Your task to perform on an android device: turn pop-ups on in chrome Image 0: 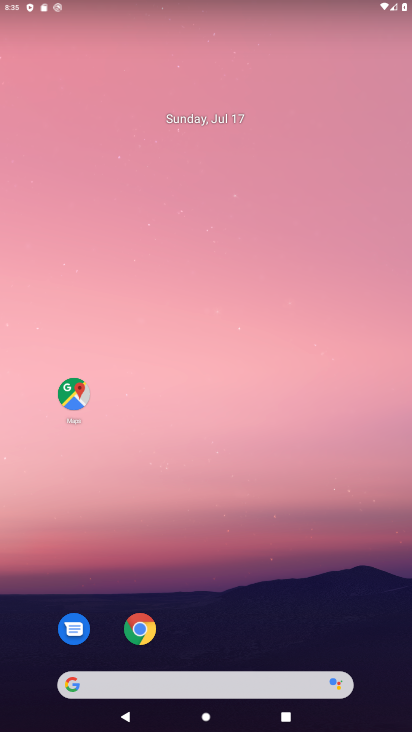
Step 0: drag from (168, 671) to (306, 42)
Your task to perform on an android device: turn pop-ups on in chrome Image 1: 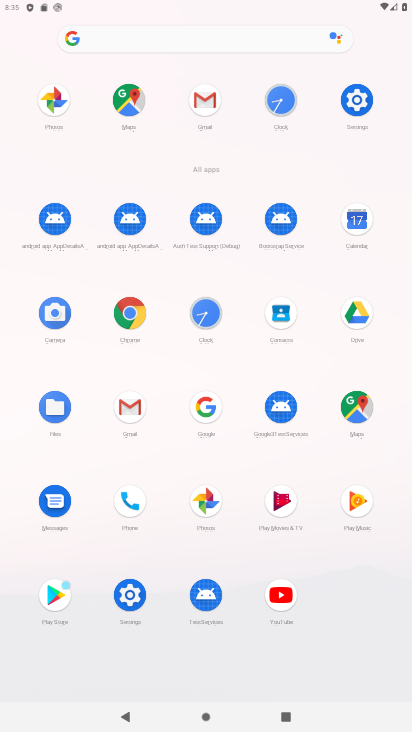
Step 1: click (114, 321)
Your task to perform on an android device: turn pop-ups on in chrome Image 2: 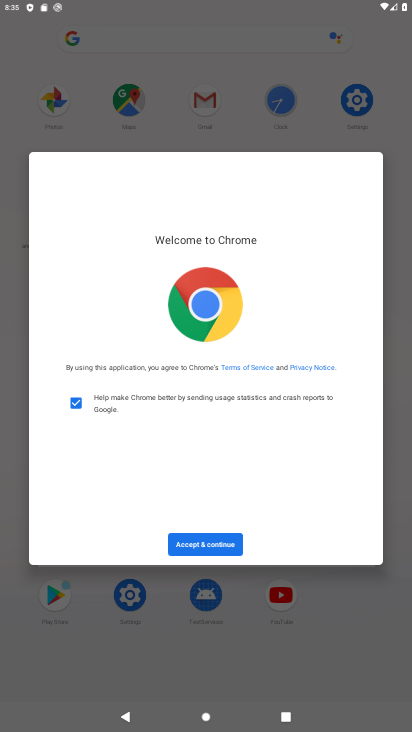
Step 2: click (225, 540)
Your task to perform on an android device: turn pop-ups on in chrome Image 3: 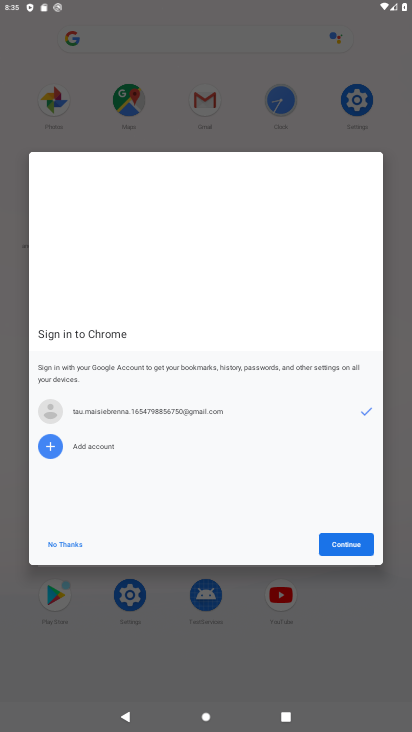
Step 3: click (357, 551)
Your task to perform on an android device: turn pop-ups on in chrome Image 4: 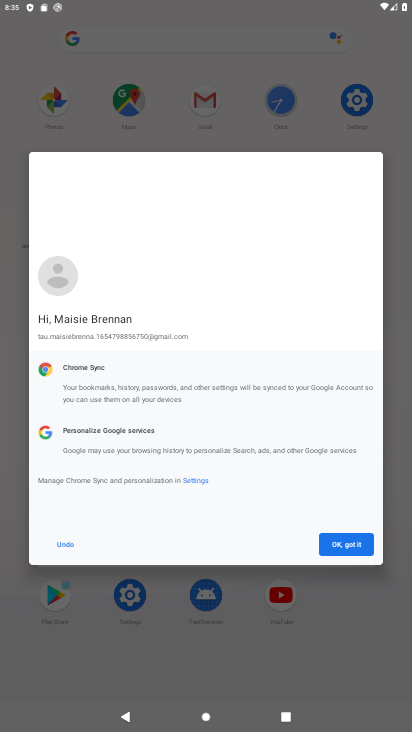
Step 4: click (352, 548)
Your task to perform on an android device: turn pop-ups on in chrome Image 5: 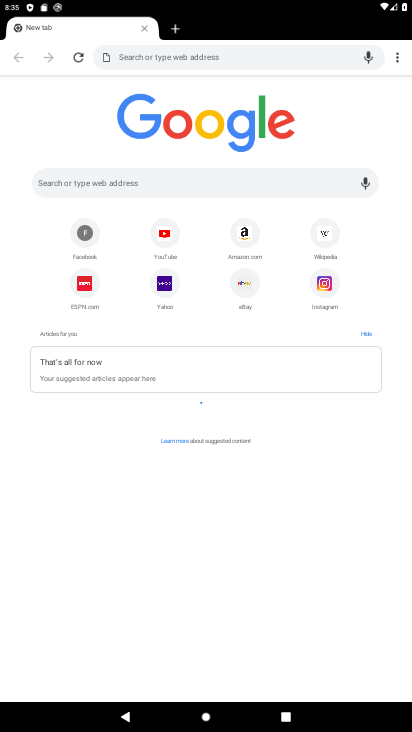
Step 5: drag from (398, 48) to (322, 275)
Your task to perform on an android device: turn pop-ups on in chrome Image 6: 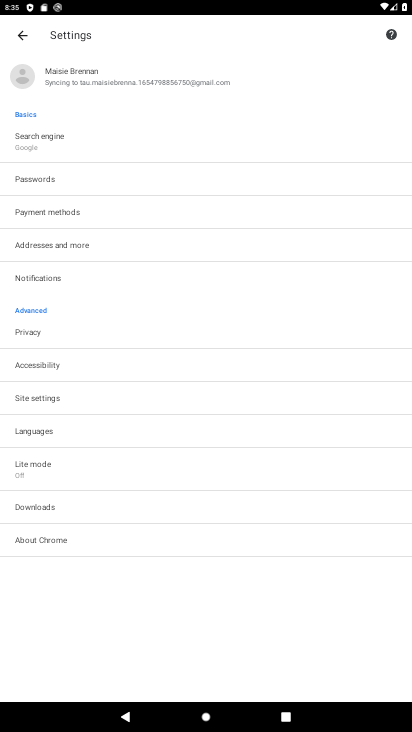
Step 6: click (118, 399)
Your task to perform on an android device: turn pop-ups on in chrome Image 7: 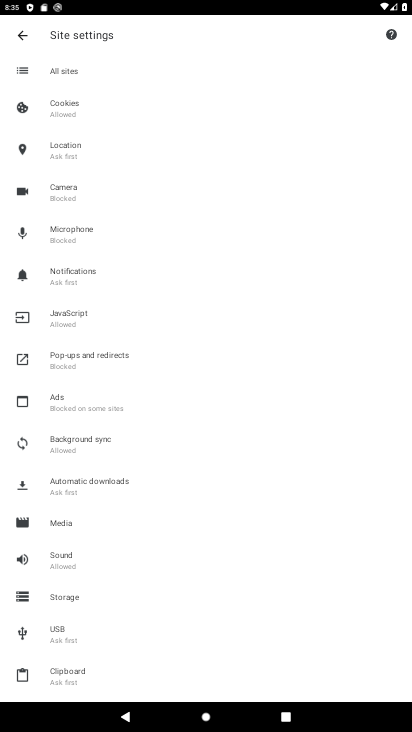
Step 7: click (137, 364)
Your task to perform on an android device: turn pop-ups on in chrome Image 8: 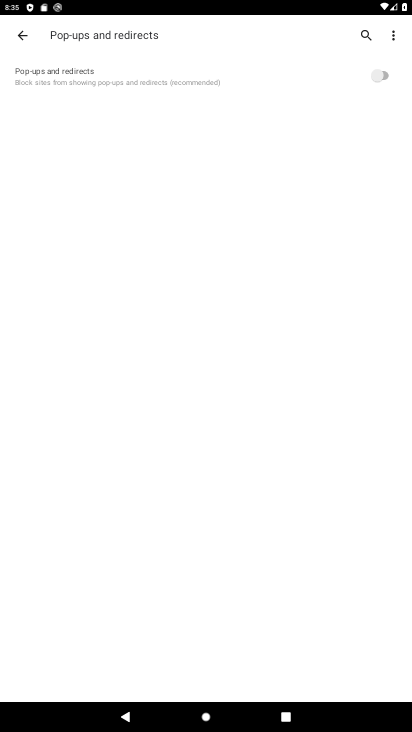
Step 8: click (394, 75)
Your task to perform on an android device: turn pop-ups on in chrome Image 9: 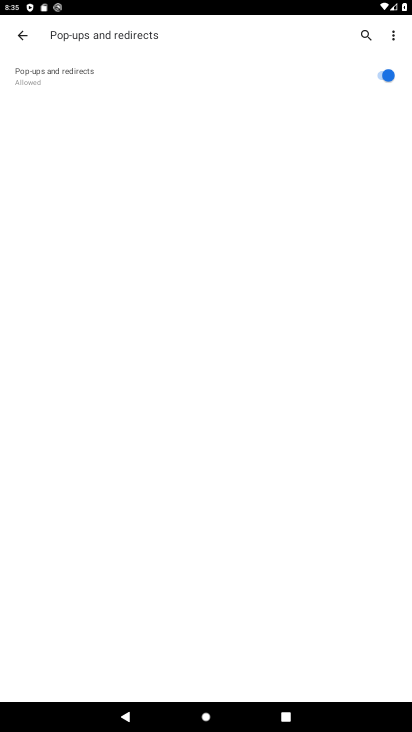
Step 9: task complete